Your task to perform on an android device: toggle pop-ups in chrome Image 0: 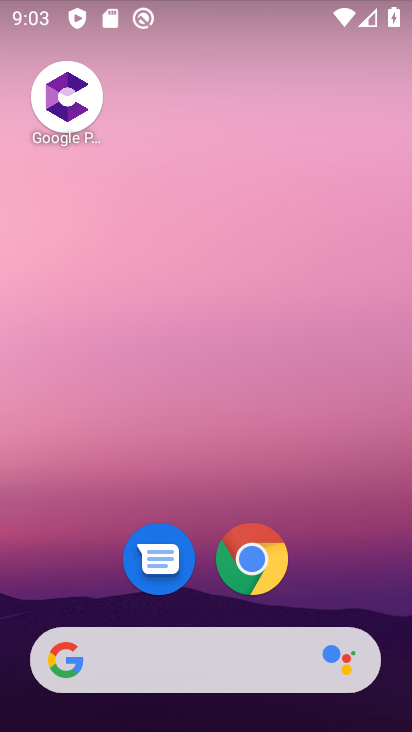
Step 0: click (261, 555)
Your task to perform on an android device: toggle pop-ups in chrome Image 1: 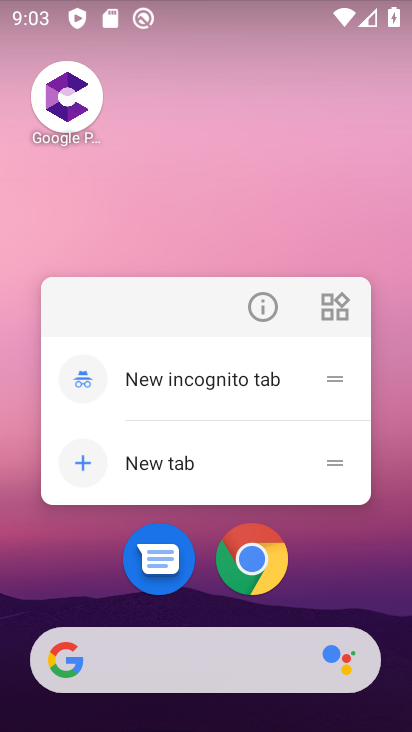
Step 1: click (259, 559)
Your task to perform on an android device: toggle pop-ups in chrome Image 2: 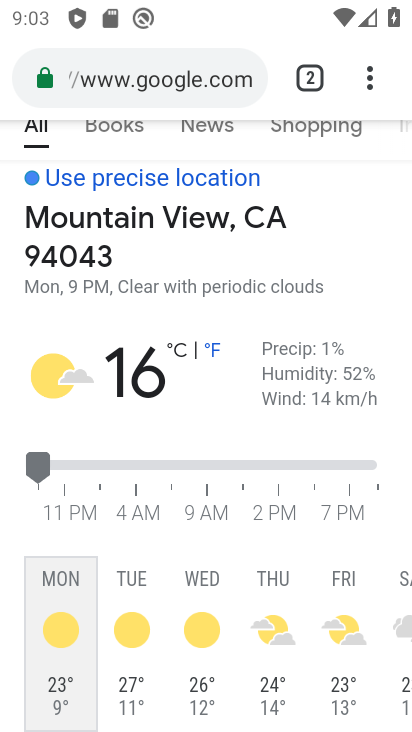
Step 2: drag from (364, 74) to (192, 634)
Your task to perform on an android device: toggle pop-ups in chrome Image 3: 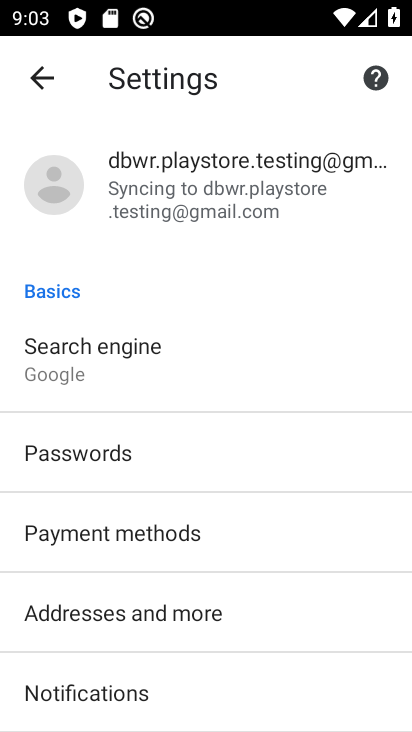
Step 3: drag from (211, 650) to (248, 198)
Your task to perform on an android device: toggle pop-ups in chrome Image 4: 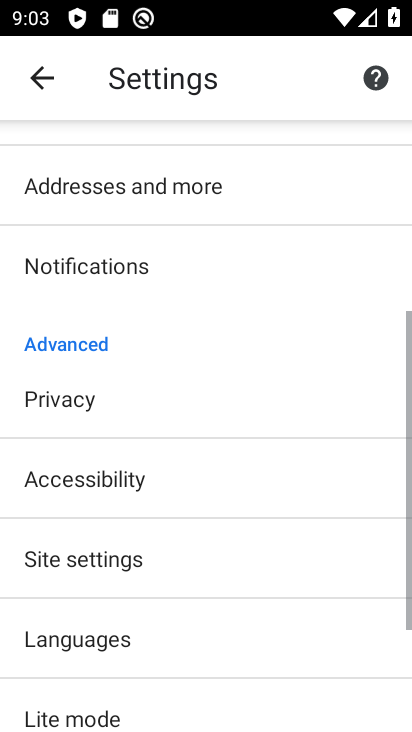
Step 4: drag from (213, 597) to (277, 249)
Your task to perform on an android device: toggle pop-ups in chrome Image 5: 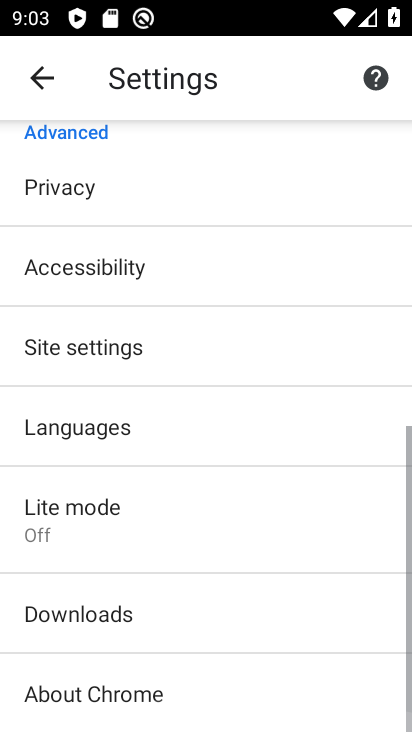
Step 5: click (277, 249)
Your task to perform on an android device: toggle pop-ups in chrome Image 6: 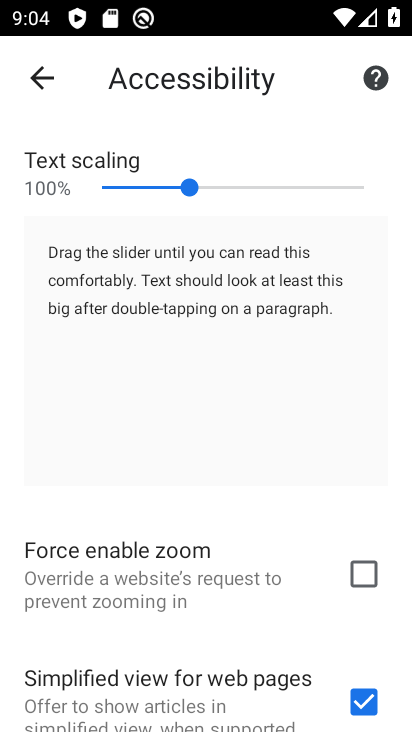
Step 6: click (29, 85)
Your task to perform on an android device: toggle pop-ups in chrome Image 7: 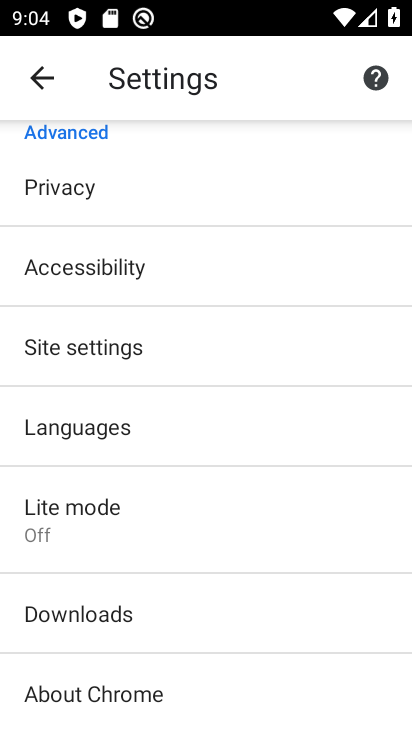
Step 7: click (142, 362)
Your task to perform on an android device: toggle pop-ups in chrome Image 8: 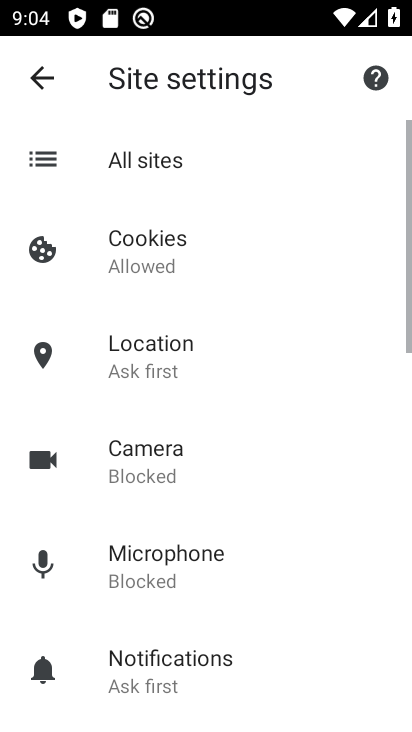
Step 8: drag from (199, 566) to (258, 168)
Your task to perform on an android device: toggle pop-ups in chrome Image 9: 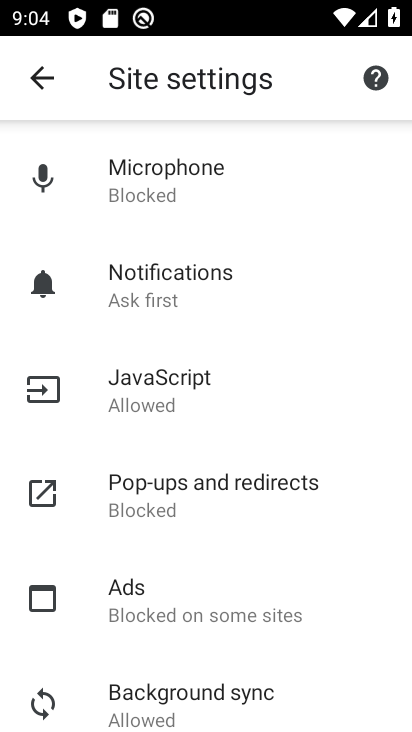
Step 9: click (274, 502)
Your task to perform on an android device: toggle pop-ups in chrome Image 10: 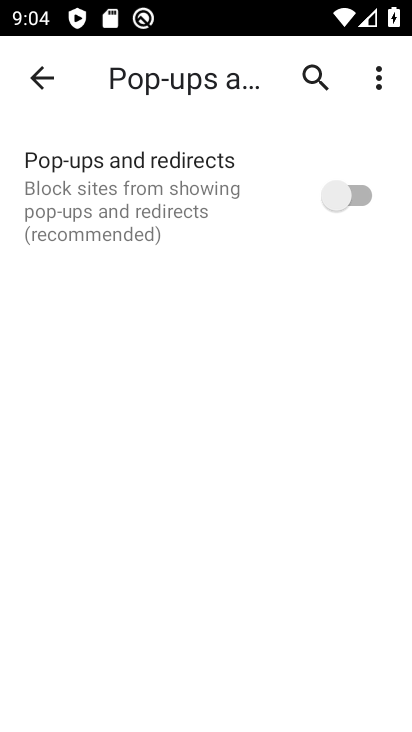
Step 10: click (353, 188)
Your task to perform on an android device: toggle pop-ups in chrome Image 11: 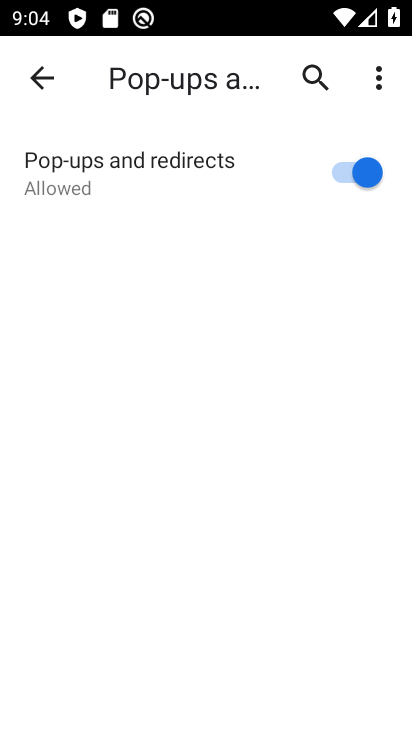
Step 11: task complete